Your task to perform on an android device: Open Chrome and go to settings Image 0: 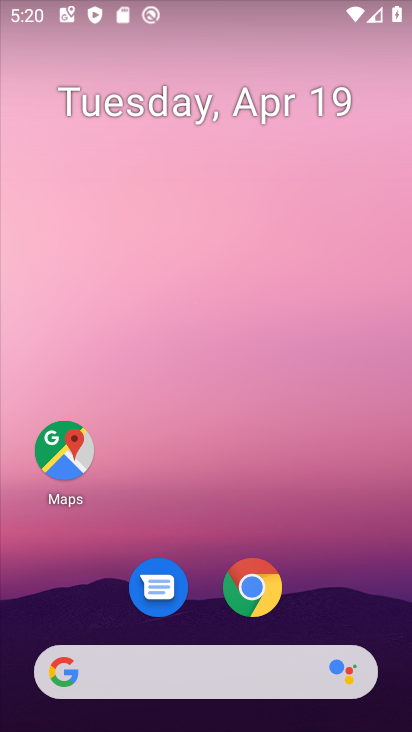
Step 0: click (265, 579)
Your task to perform on an android device: Open Chrome and go to settings Image 1: 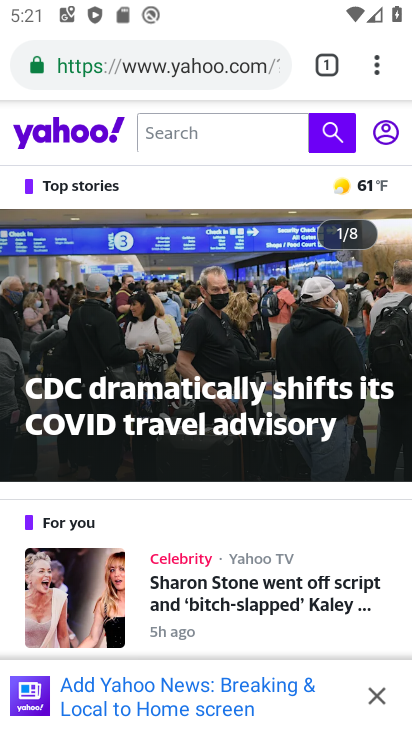
Step 1: click (386, 58)
Your task to perform on an android device: Open Chrome and go to settings Image 2: 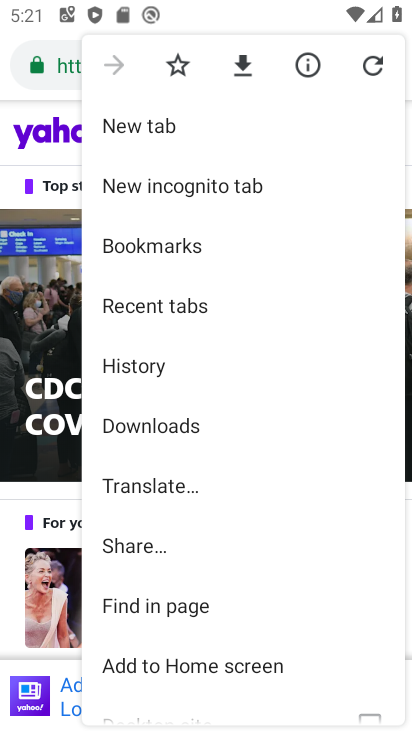
Step 2: drag from (151, 599) to (203, 84)
Your task to perform on an android device: Open Chrome and go to settings Image 3: 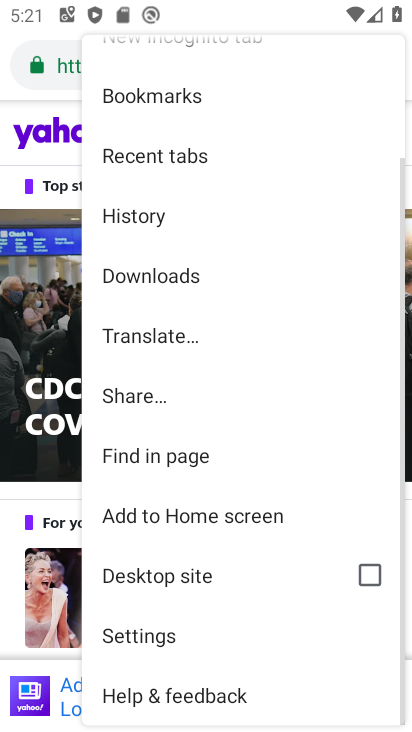
Step 3: click (147, 634)
Your task to perform on an android device: Open Chrome and go to settings Image 4: 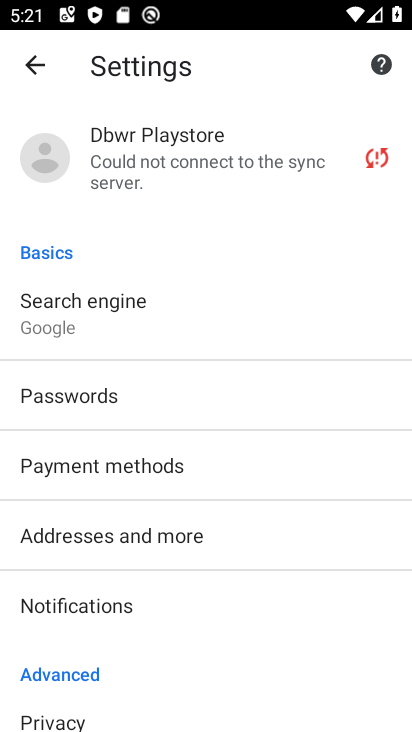
Step 4: task complete